Your task to perform on an android device: Do I have any events today? Image 0: 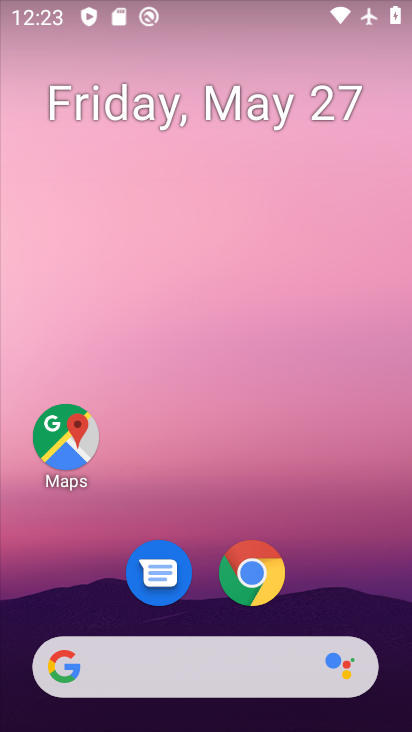
Step 0: drag from (325, 504) to (341, 127)
Your task to perform on an android device: Do I have any events today? Image 1: 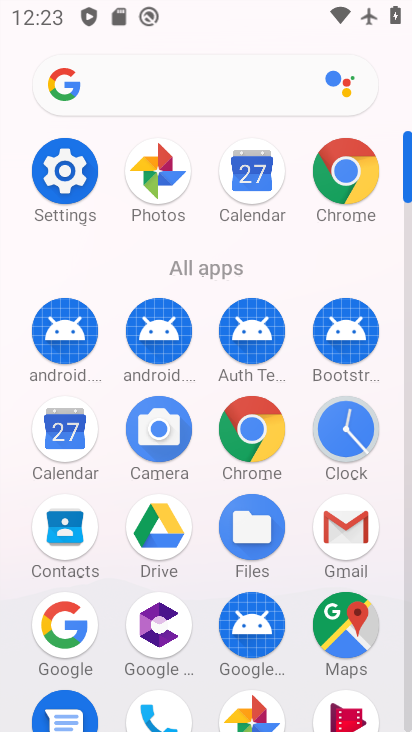
Step 1: click (256, 175)
Your task to perform on an android device: Do I have any events today? Image 2: 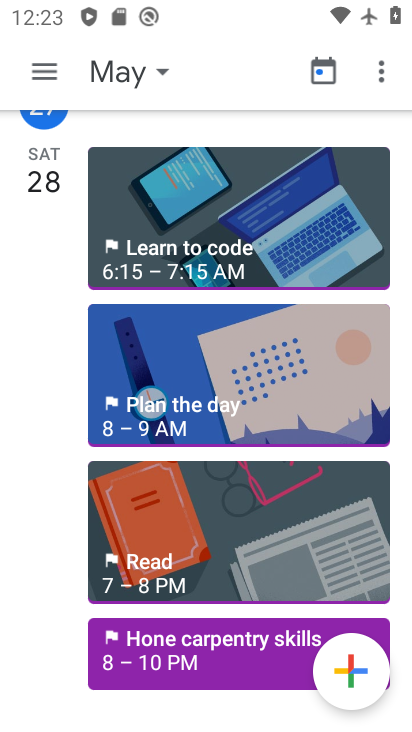
Step 2: task complete